Your task to perform on an android device: Set the phone to "Do not disturb". Image 0: 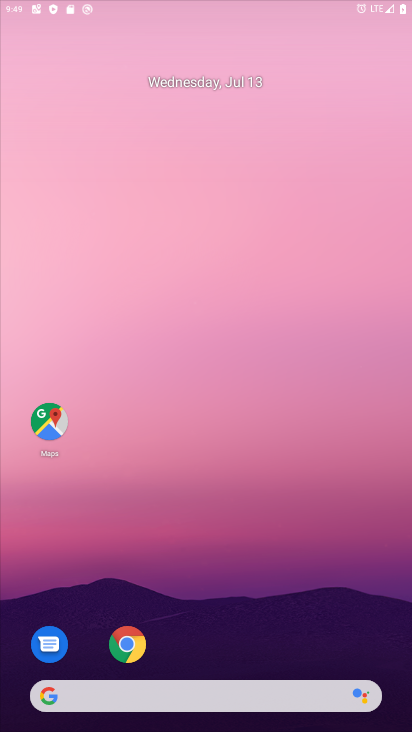
Step 0: drag from (205, 724) to (239, 253)
Your task to perform on an android device: Set the phone to "Do not disturb". Image 1: 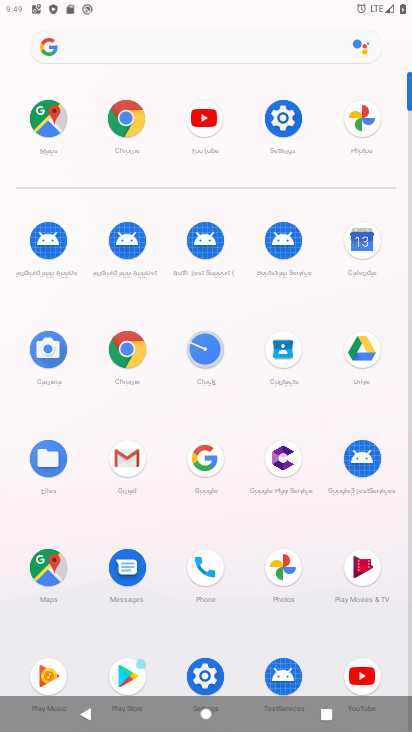
Step 1: click (280, 118)
Your task to perform on an android device: Set the phone to "Do not disturb". Image 2: 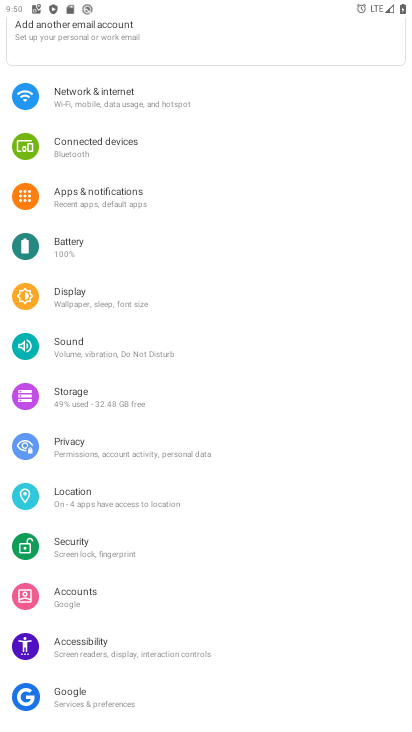
Step 2: click (124, 353)
Your task to perform on an android device: Set the phone to "Do not disturb". Image 3: 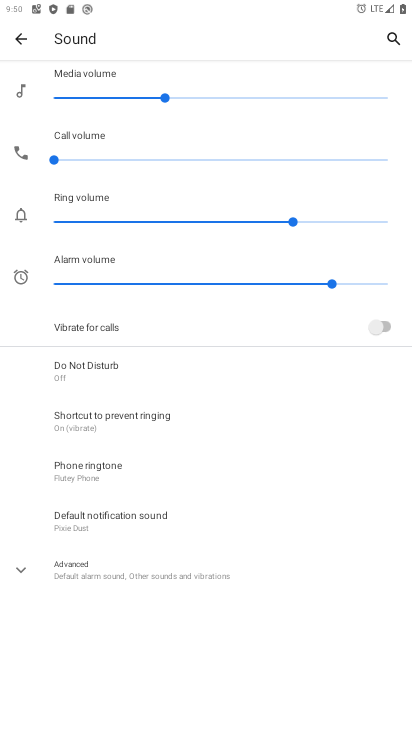
Step 3: task complete